Your task to perform on an android device: Open Reddit.com Image 0: 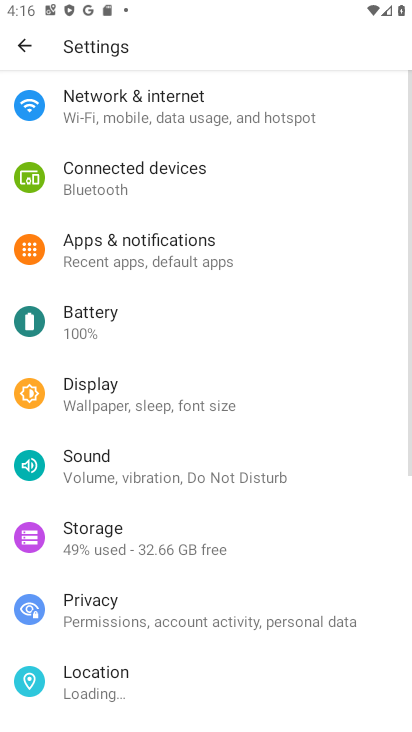
Step 0: press home button
Your task to perform on an android device: Open Reddit.com Image 1: 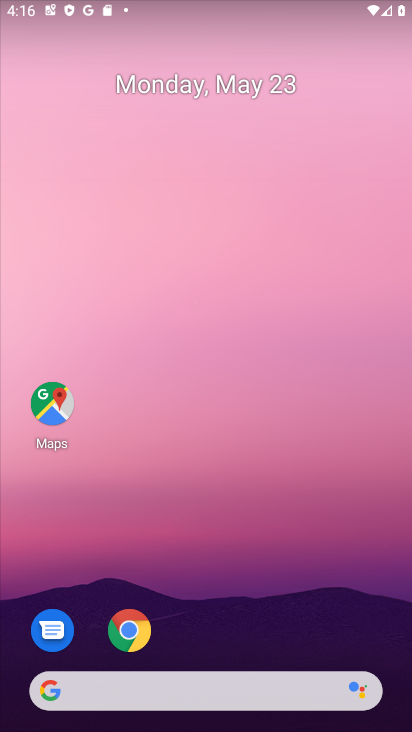
Step 1: click (127, 625)
Your task to perform on an android device: Open Reddit.com Image 2: 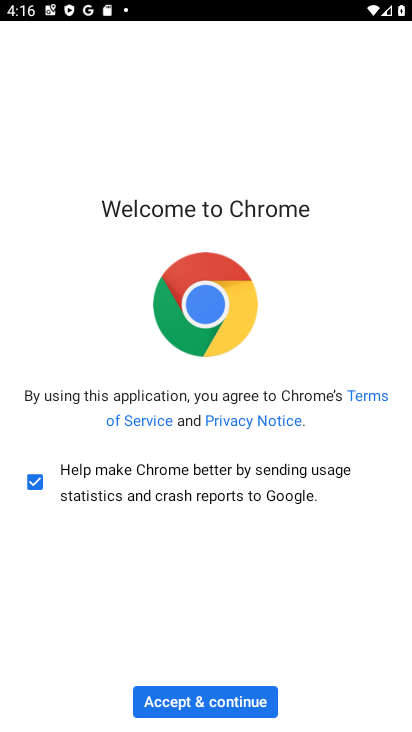
Step 2: click (197, 696)
Your task to perform on an android device: Open Reddit.com Image 3: 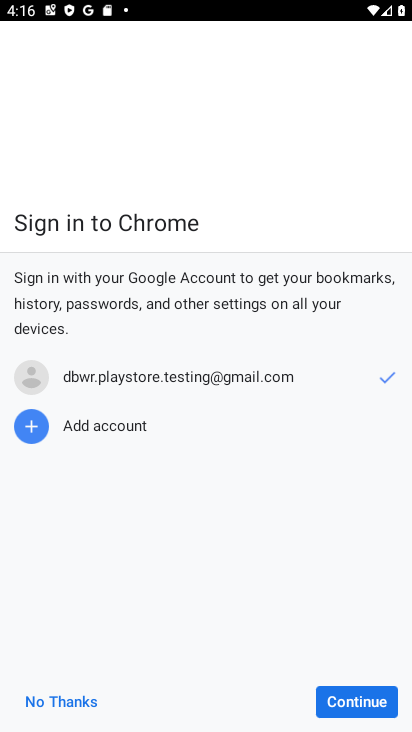
Step 3: click (359, 700)
Your task to perform on an android device: Open Reddit.com Image 4: 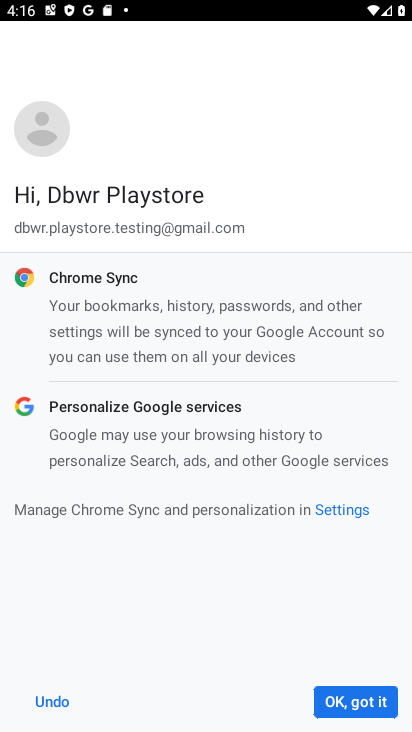
Step 4: click (349, 699)
Your task to perform on an android device: Open Reddit.com Image 5: 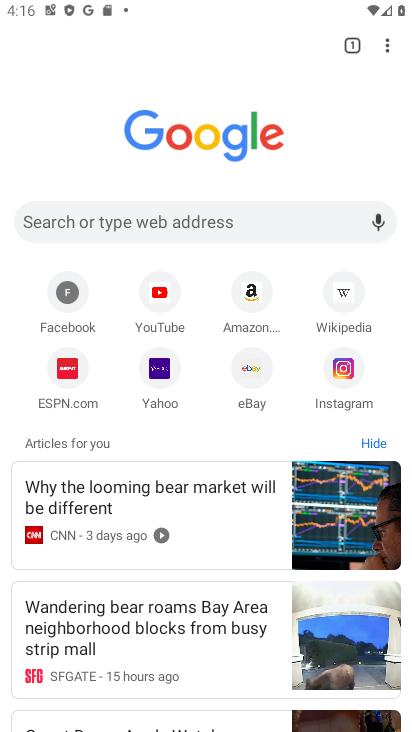
Step 5: click (119, 218)
Your task to perform on an android device: Open Reddit.com Image 6: 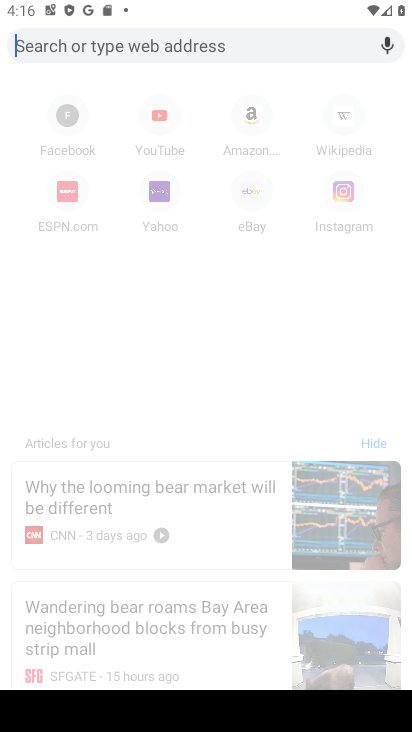
Step 6: type "reddit"
Your task to perform on an android device: Open Reddit.com Image 7: 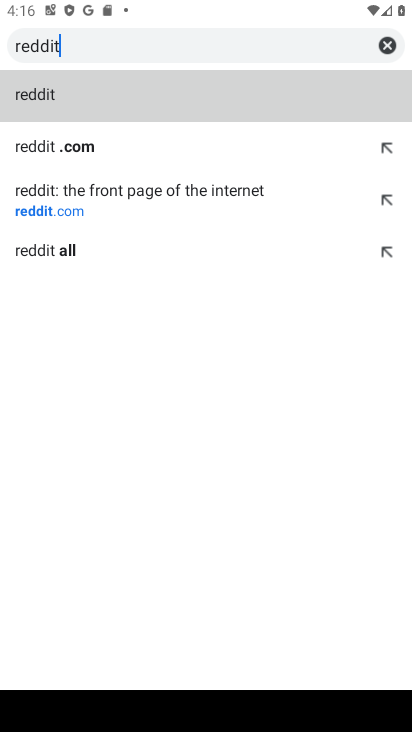
Step 7: click (122, 205)
Your task to perform on an android device: Open Reddit.com Image 8: 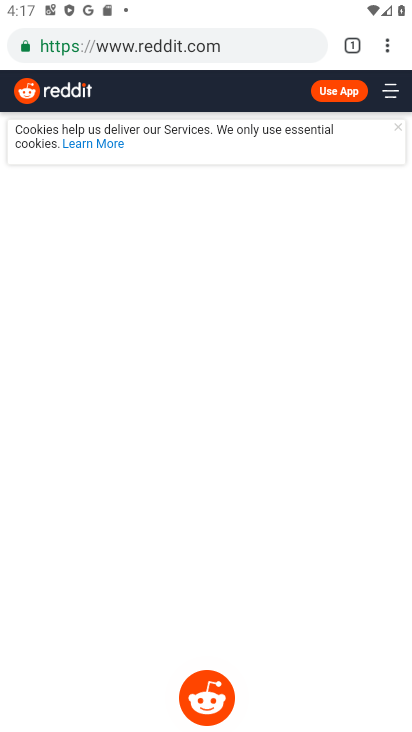
Step 8: drag from (234, 609) to (271, 141)
Your task to perform on an android device: Open Reddit.com Image 9: 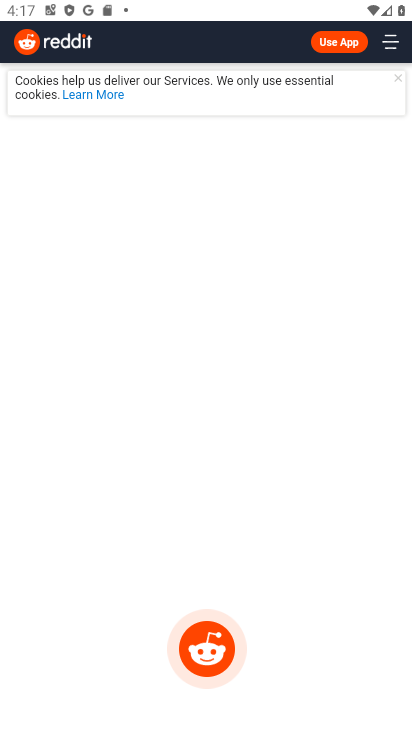
Step 9: drag from (245, 641) to (273, 240)
Your task to perform on an android device: Open Reddit.com Image 10: 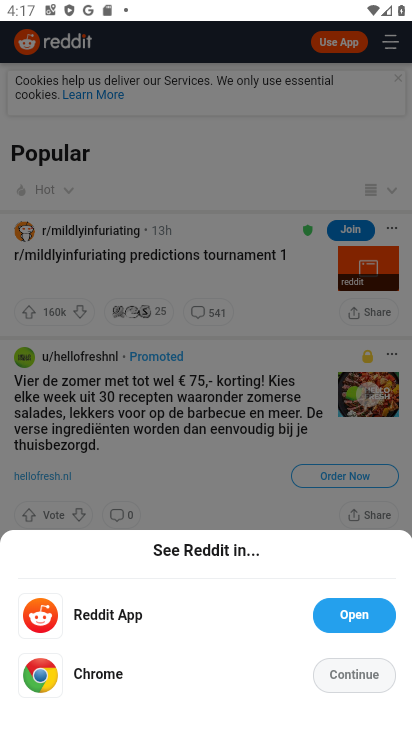
Step 10: click (354, 669)
Your task to perform on an android device: Open Reddit.com Image 11: 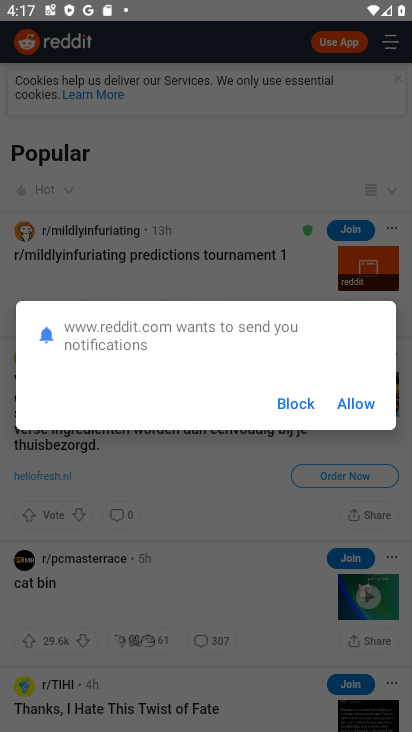
Step 11: click (286, 398)
Your task to perform on an android device: Open Reddit.com Image 12: 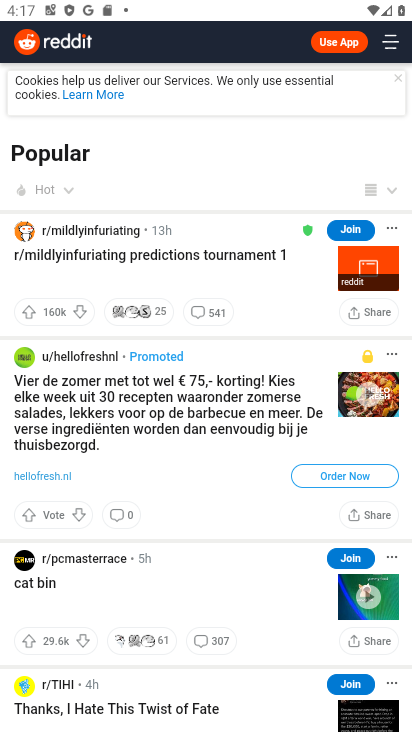
Step 12: task complete